Your task to perform on an android device: move an email to a new category in the gmail app Image 0: 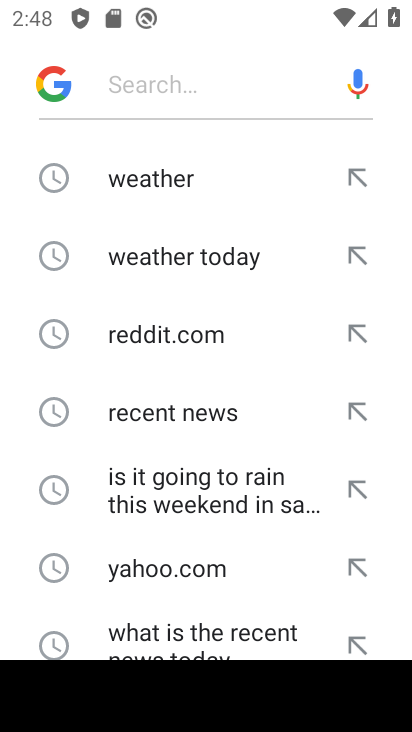
Step 0: press back button
Your task to perform on an android device: move an email to a new category in the gmail app Image 1: 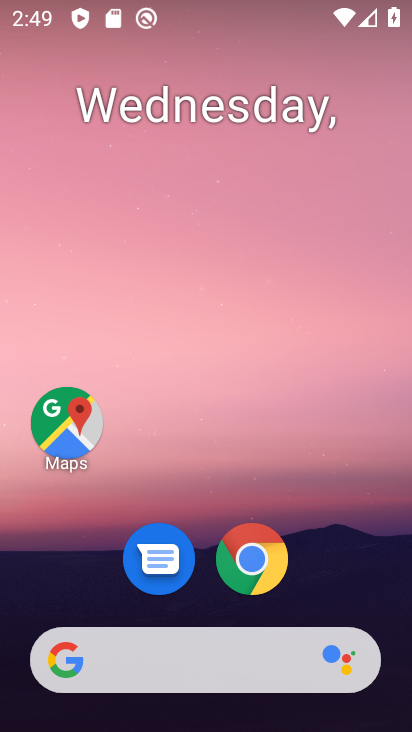
Step 1: drag from (210, 600) to (279, 11)
Your task to perform on an android device: move an email to a new category in the gmail app Image 2: 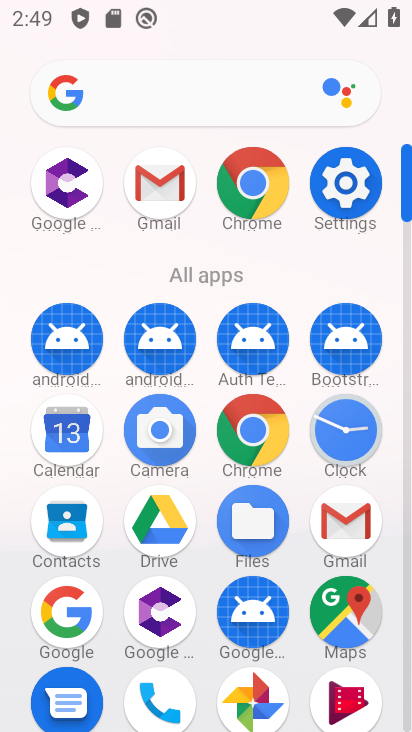
Step 2: click (151, 190)
Your task to perform on an android device: move an email to a new category in the gmail app Image 3: 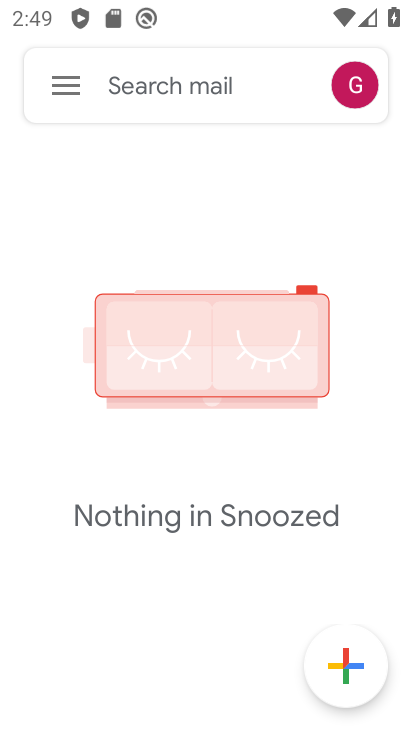
Step 3: click (52, 82)
Your task to perform on an android device: move an email to a new category in the gmail app Image 4: 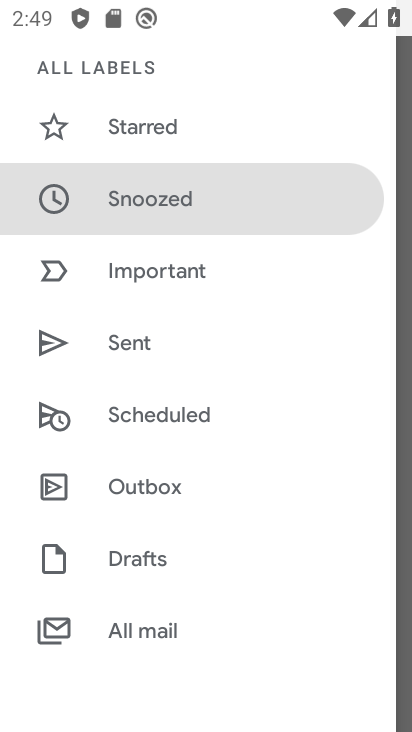
Step 4: click (135, 633)
Your task to perform on an android device: move an email to a new category in the gmail app Image 5: 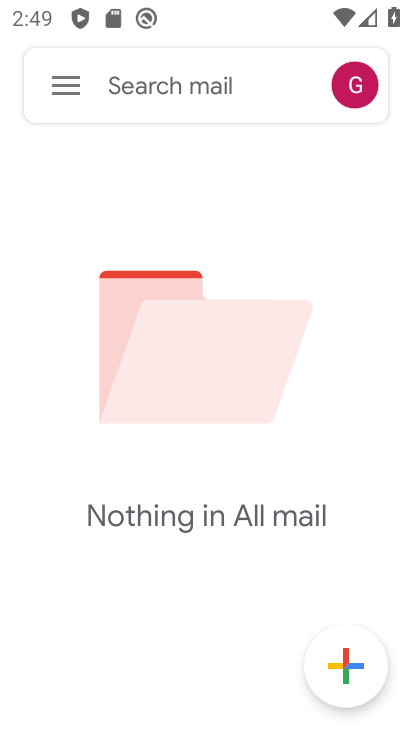
Step 5: task complete